Your task to perform on an android device: open app "NewsBreak: Local News & Alerts" Image 0: 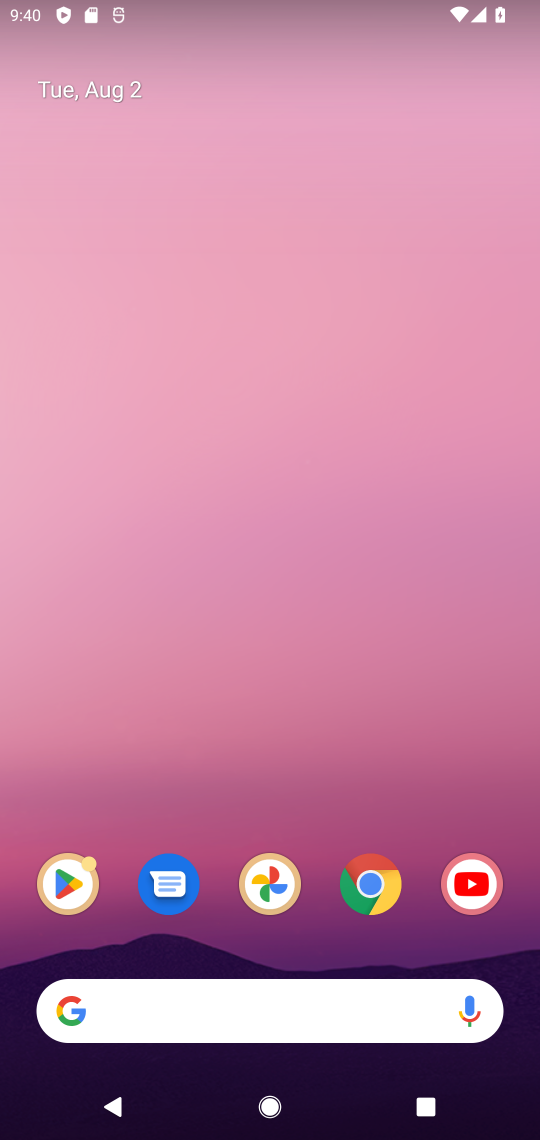
Step 0: drag from (262, 561) to (235, 265)
Your task to perform on an android device: open app "NewsBreak: Local News & Alerts" Image 1: 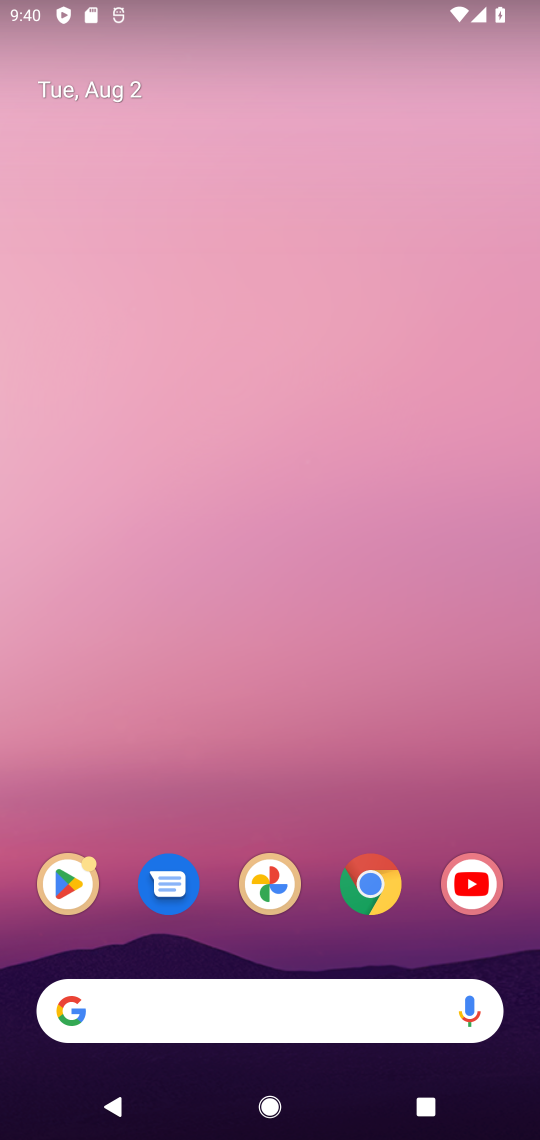
Step 1: drag from (373, 613) to (319, 394)
Your task to perform on an android device: open app "NewsBreak: Local News & Alerts" Image 2: 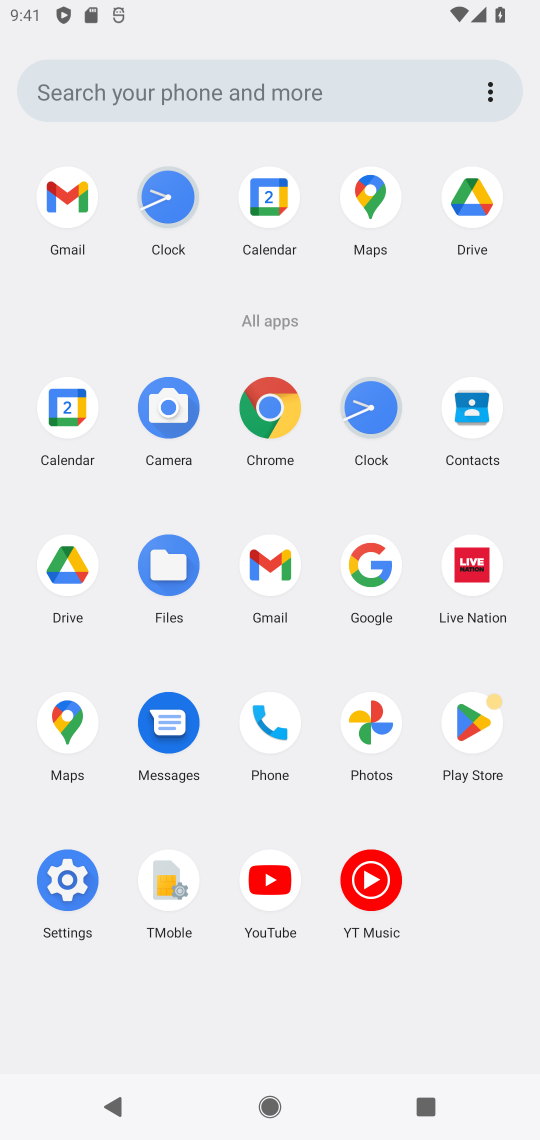
Step 2: click (390, 736)
Your task to perform on an android device: open app "NewsBreak: Local News & Alerts" Image 3: 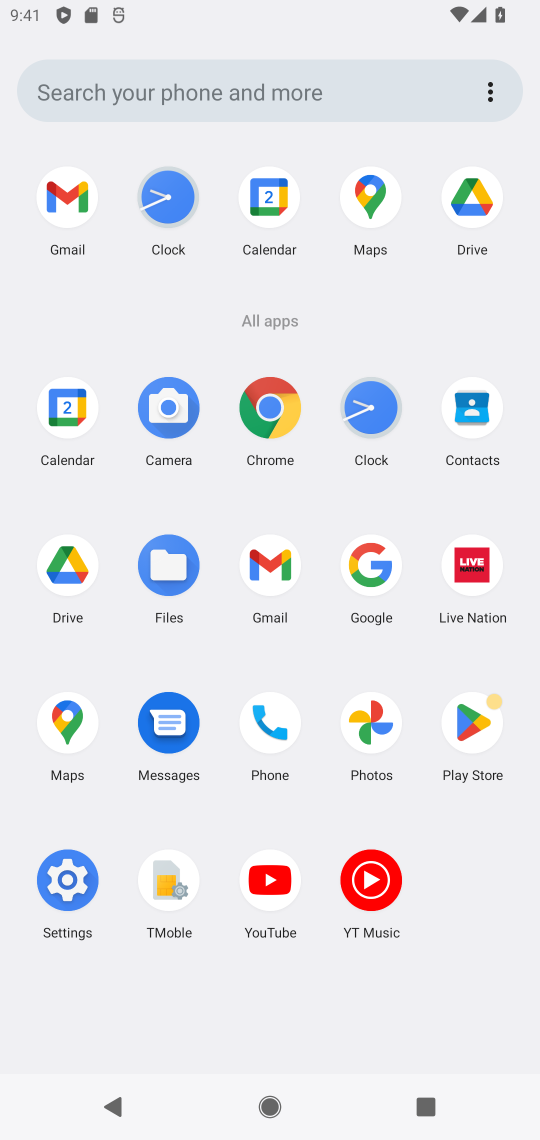
Step 3: click (433, 651)
Your task to perform on an android device: open app "NewsBreak: Local News & Alerts" Image 4: 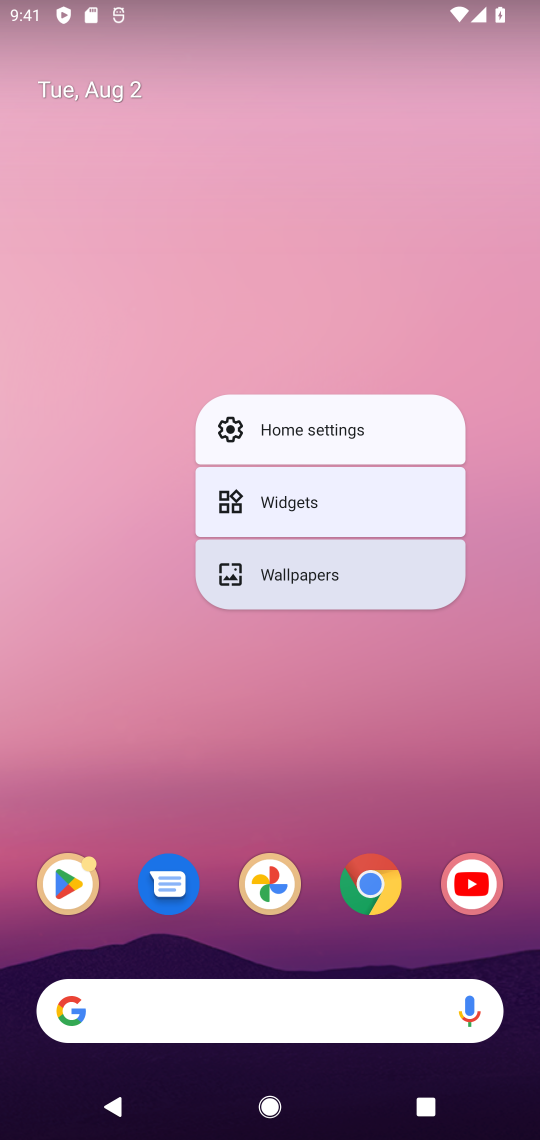
Step 4: drag from (370, 846) to (301, 344)
Your task to perform on an android device: open app "NewsBreak: Local News & Alerts" Image 5: 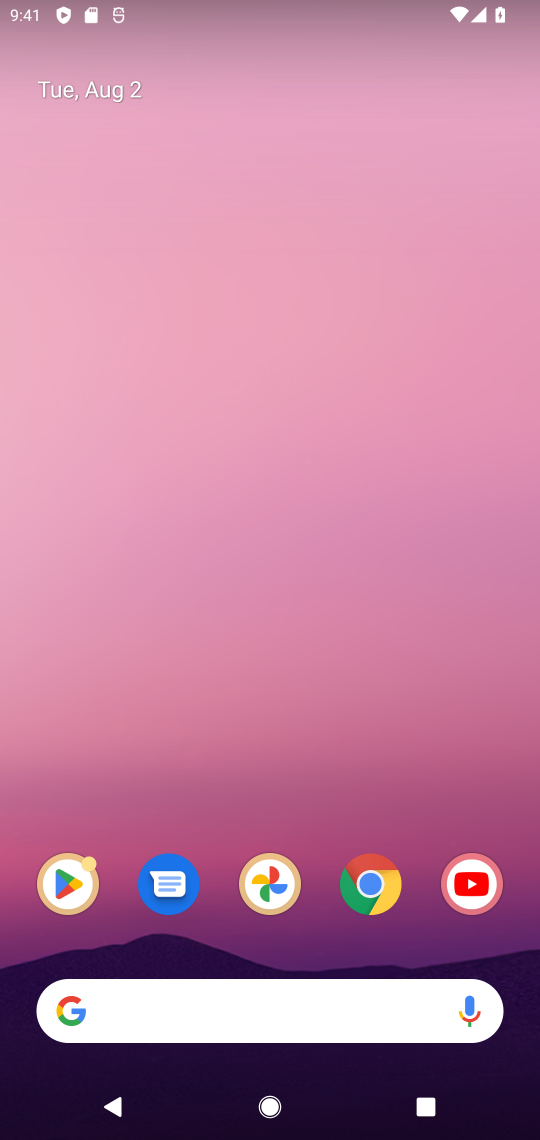
Step 5: click (168, 291)
Your task to perform on an android device: open app "NewsBreak: Local News & Alerts" Image 6: 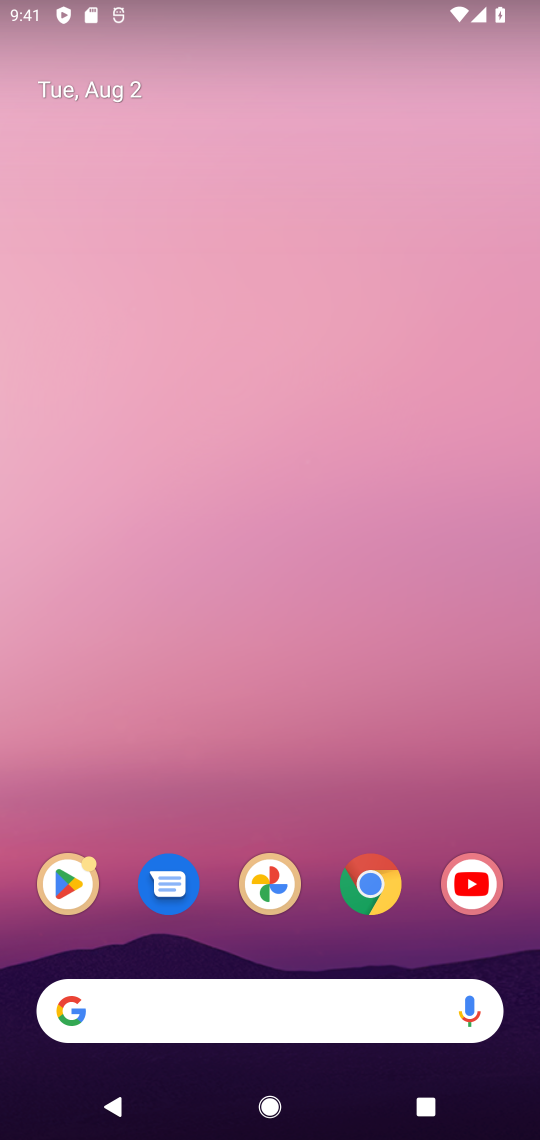
Step 6: drag from (165, 688) to (147, 373)
Your task to perform on an android device: open app "NewsBreak: Local News & Alerts" Image 7: 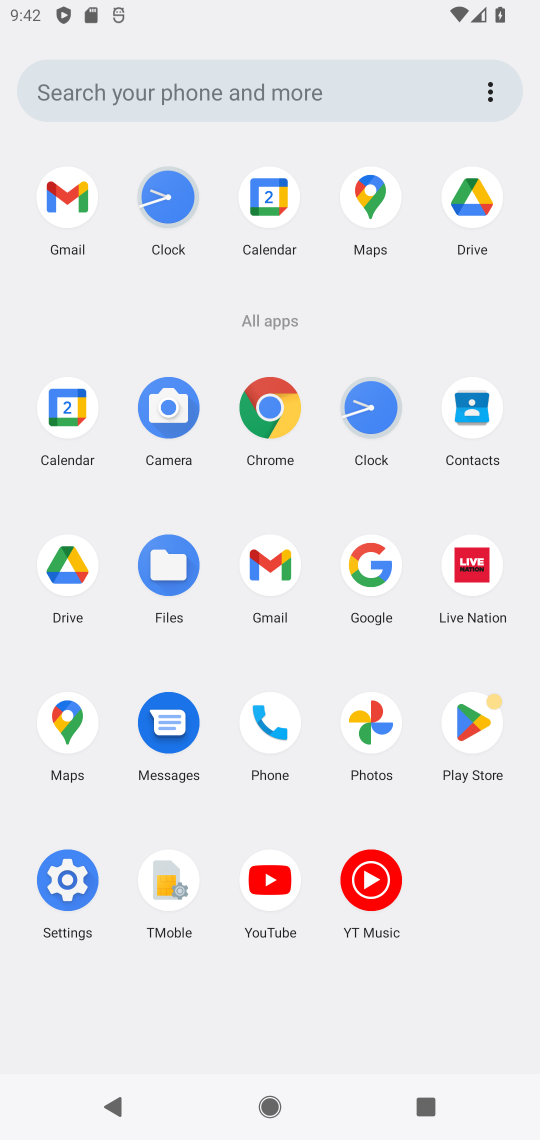
Step 7: click (144, 111)
Your task to perform on an android device: open app "NewsBreak: Local News & Alerts" Image 8: 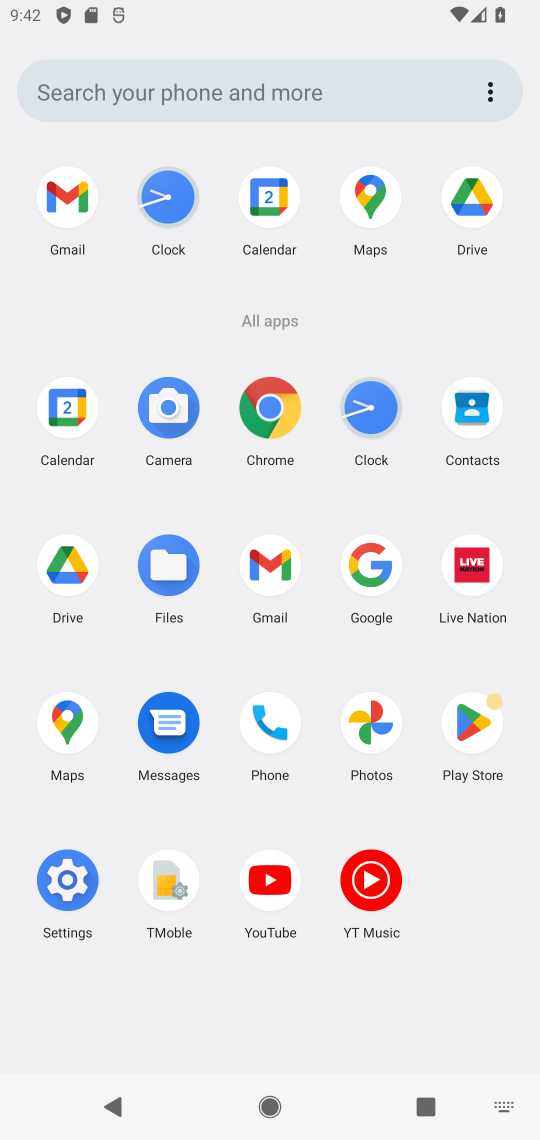
Step 8: click (132, 111)
Your task to perform on an android device: open app "NewsBreak: Local News & Alerts" Image 9: 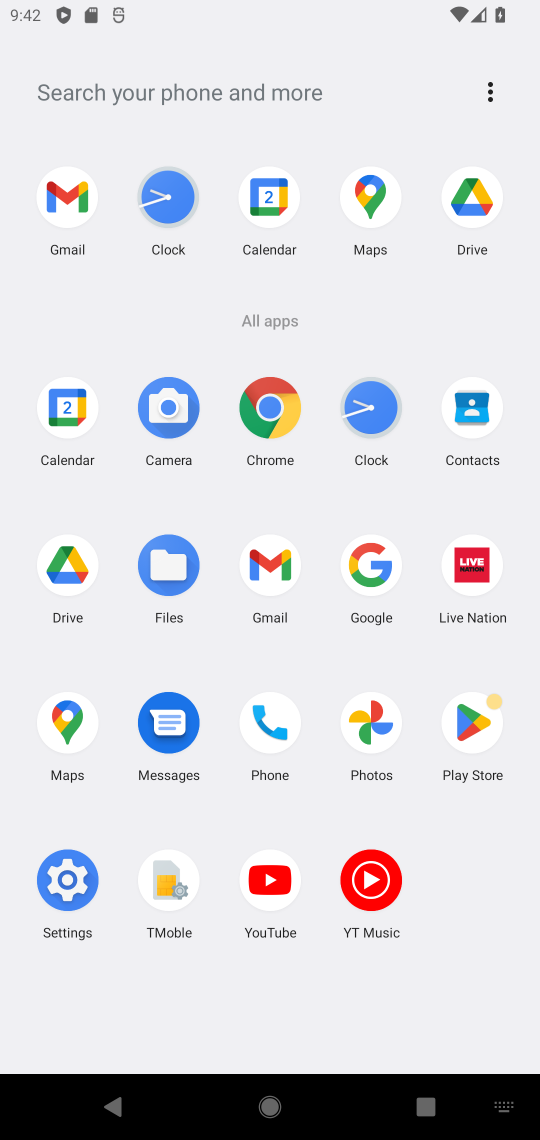
Step 9: type "news beak"
Your task to perform on an android device: open app "NewsBreak: Local News & Alerts" Image 10: 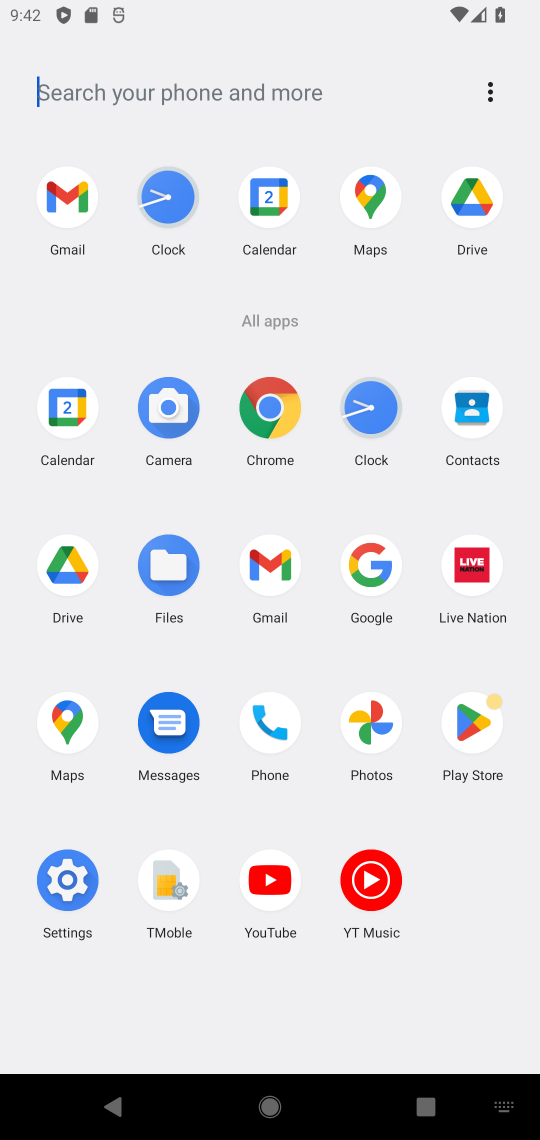
Step 10: click (79, 720)
Your task to perform on an android device: open app "NewsBreak: Local News & Alerts" Image 11: 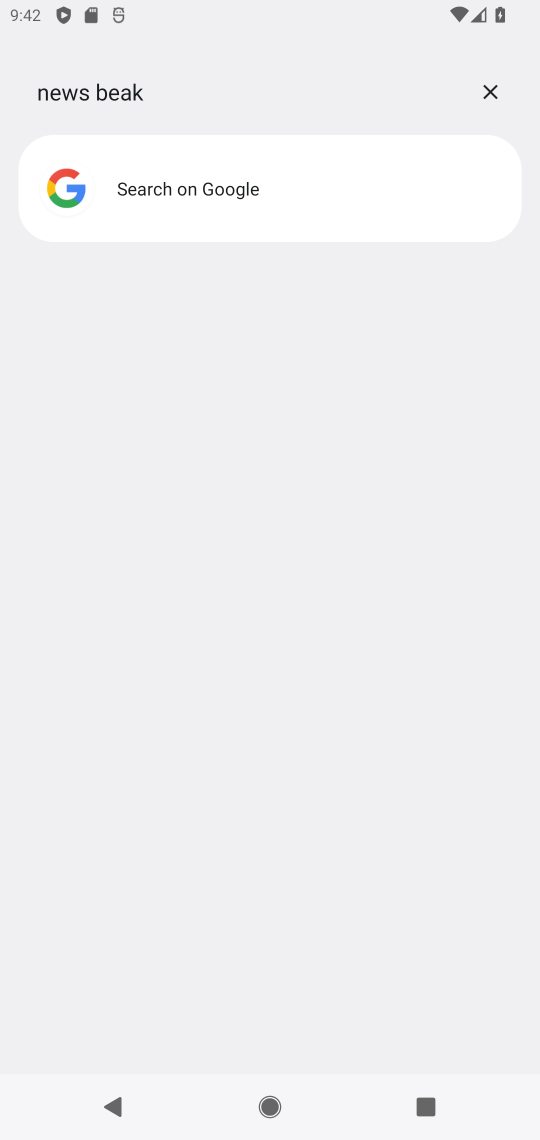
Step 11: click (90, 703)
Your task to perform on an android device: open app "NewsBreak: Local News & Alerts" Image 12: 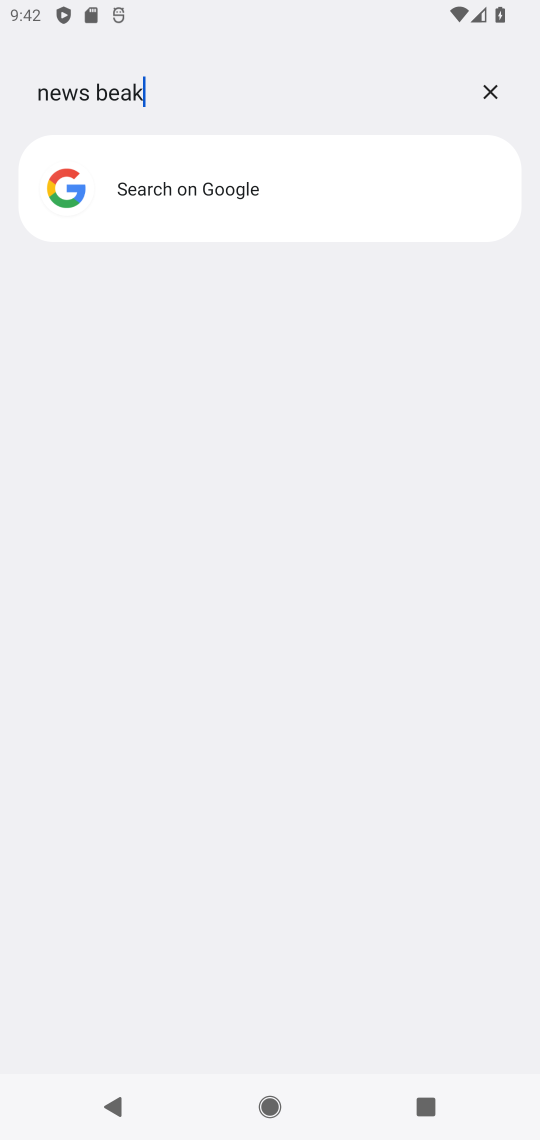
Step 12: press back button
Your task to perform on an android device: open app "NewsBreak: Local News & Alerts" Image 13: 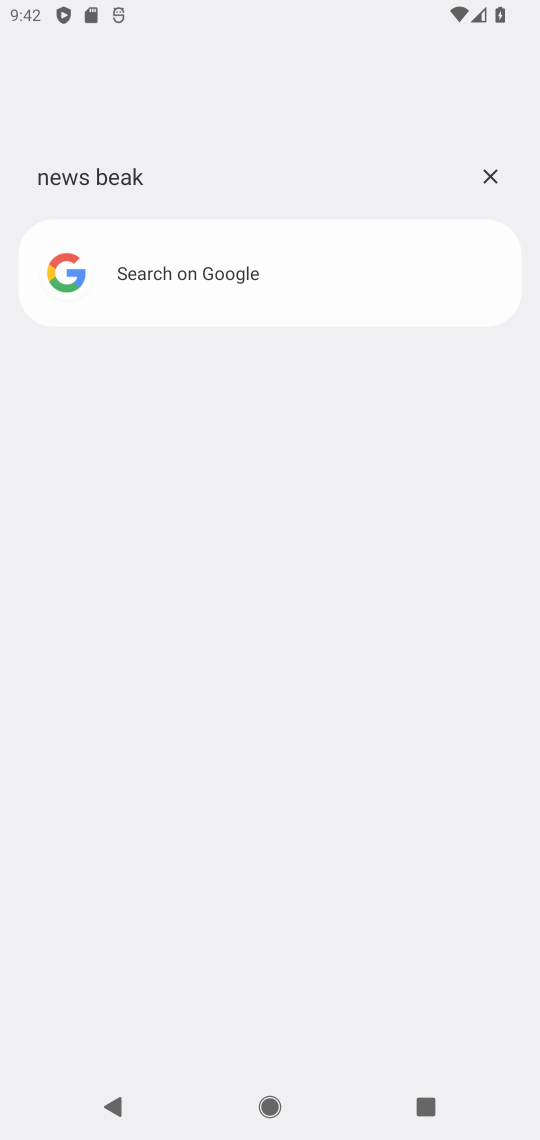
Step 13: press back button
Your task to perform on an android device: open app "NewsBreak: Local News & Alerts" Image 14: 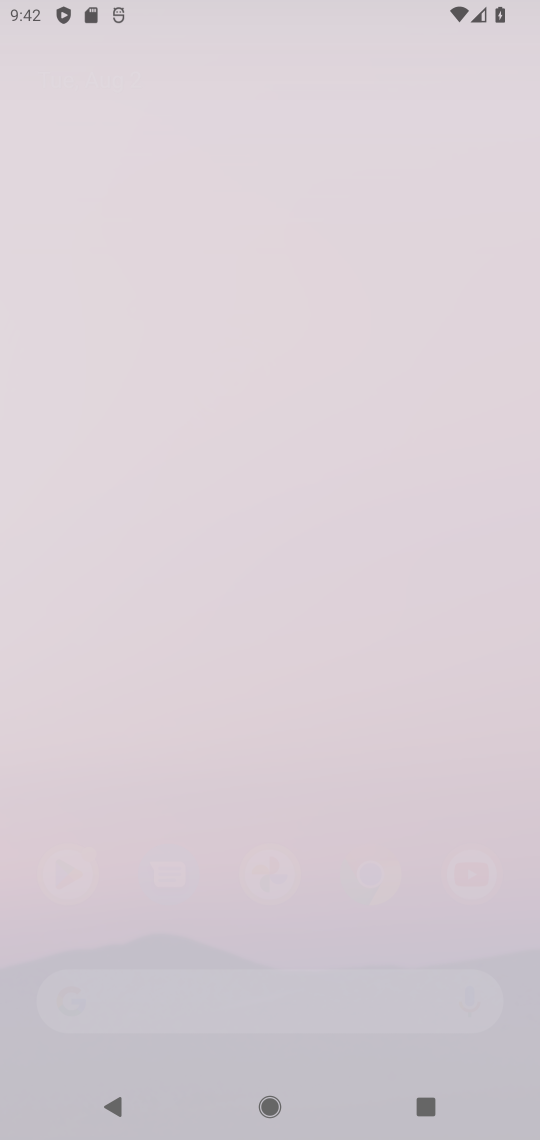
Step 14: press back button
Your task to perform on an android device: open app "NewsBreak: Local News & Alerts" Image 15: 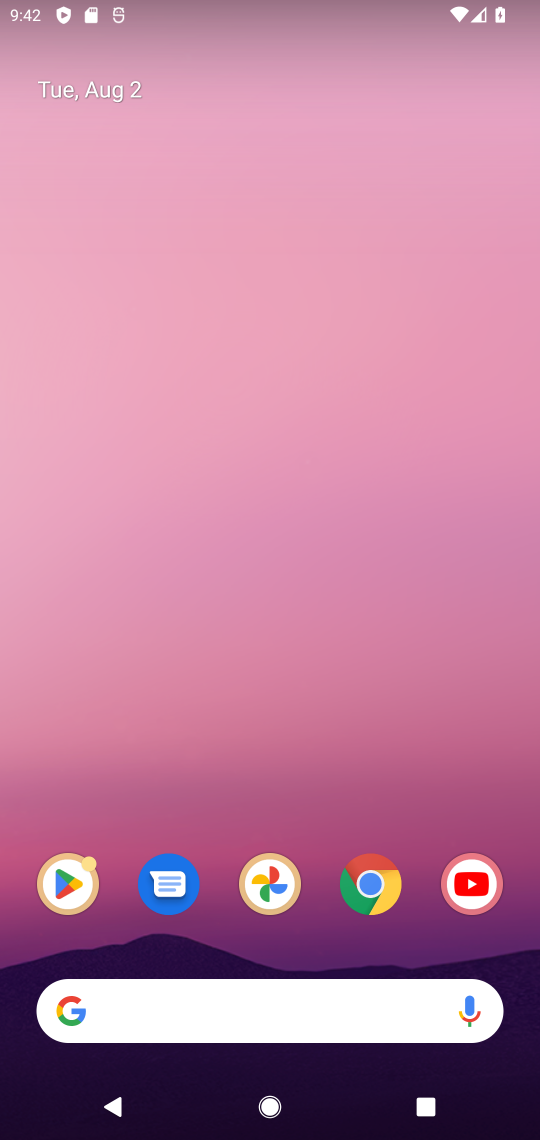
Step 15: drag from (257, 872) to (153, 97)
Your task to perform on an android device: open app "NewsBreak: Local News & Alerts" Image 16: 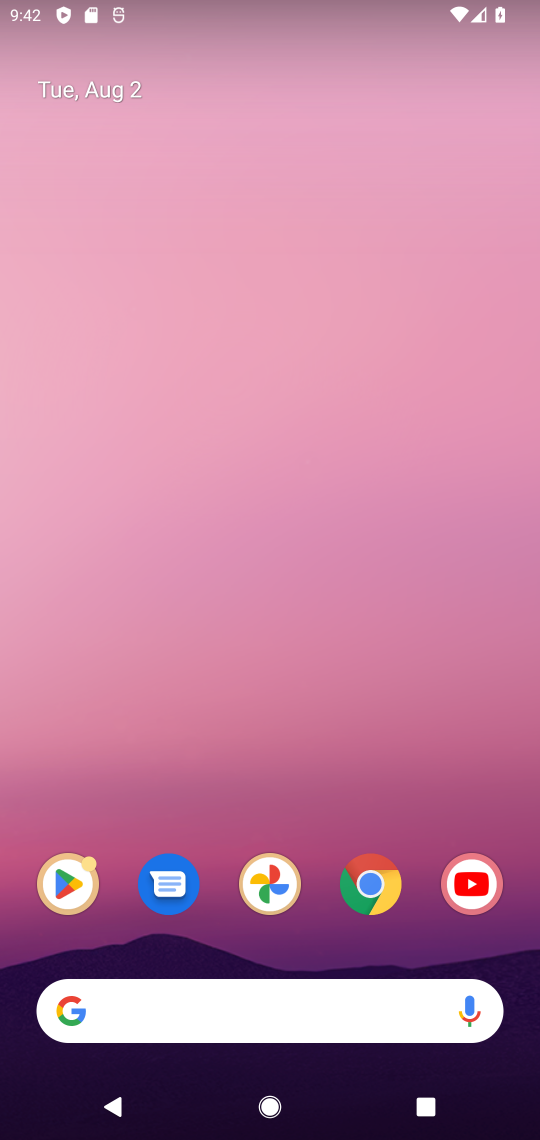
Step 16: drag from (219, 457) to (203, 198)
Your task to perform on an android device: open app "NewsBreak: Local News & Alerts" Image 17: 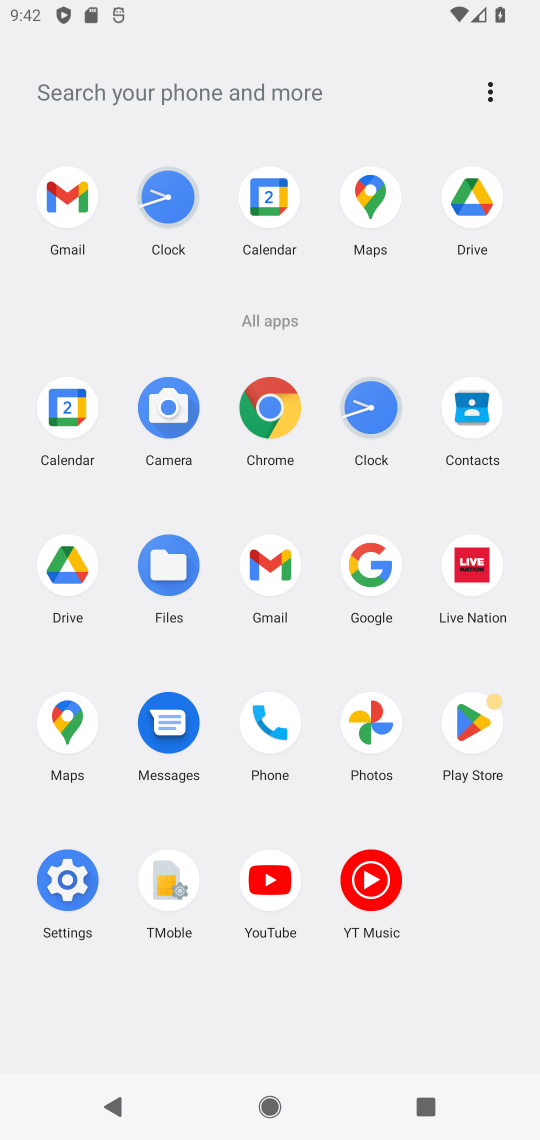
Step 17: click (495, 739)
Your task to perform on an android device: open app "NewsBreak: Local News & Alerts" Image 18: 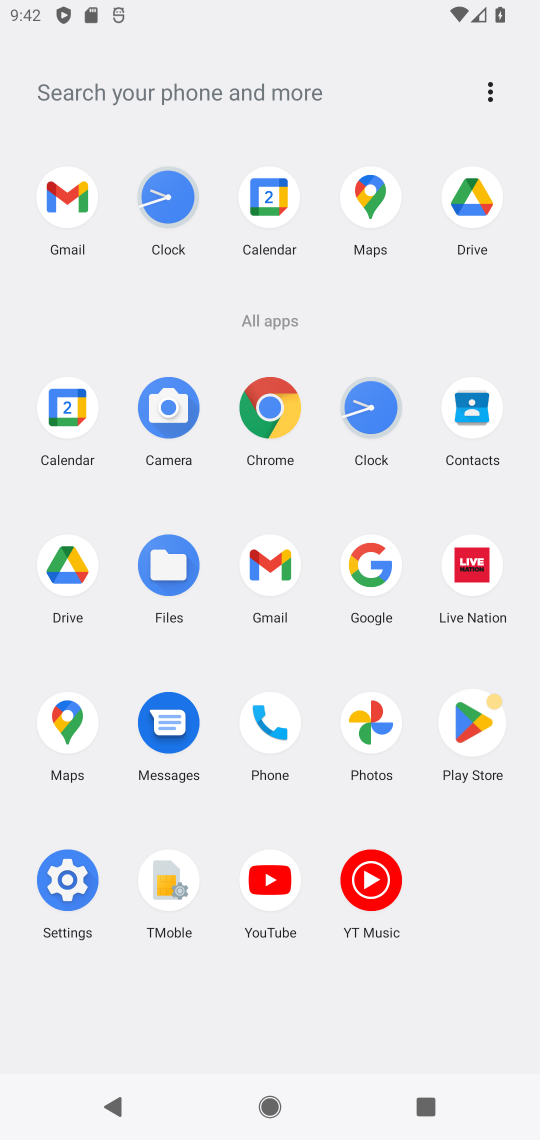
Step 18: click (487, 724)
Your task to perform on an android device: open app "NewsBreak: Local News & Alerts" Image 19: 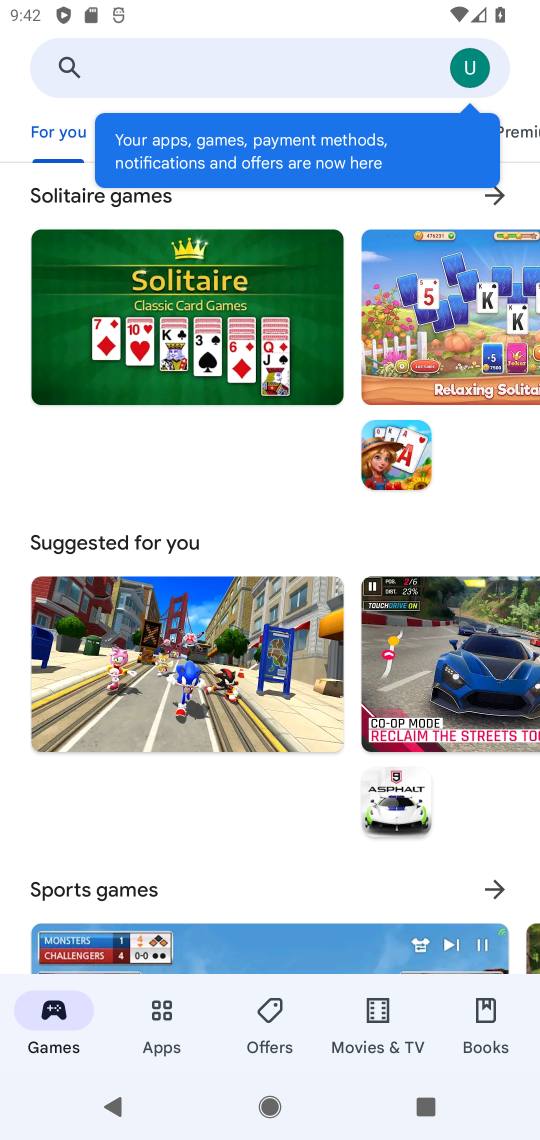
Step 19: task complete